Your task to perform on an android device: Search for Mexican restaurants on Maps Image 0: 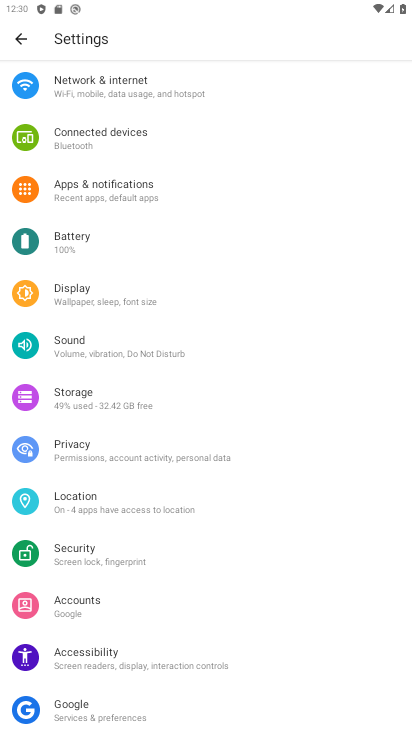
Step 0: press home button
Your task to perform on an android device: Search for Mexican restaurants on Maps Image 1: 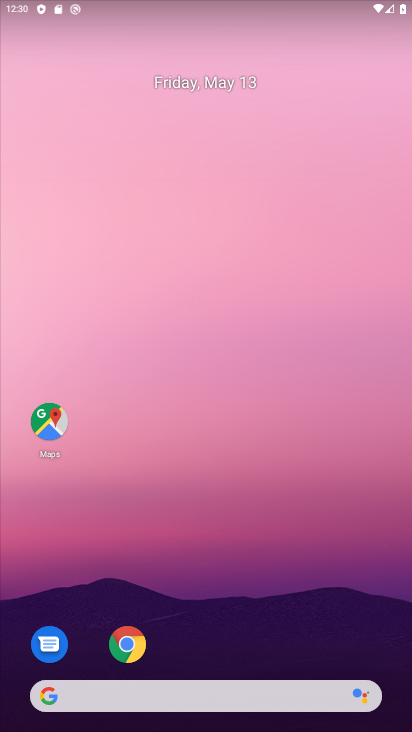
Step 1: click (54, 423)
Your task to perform on an android device: Search for Mexican restaurants on Maps Image 2: 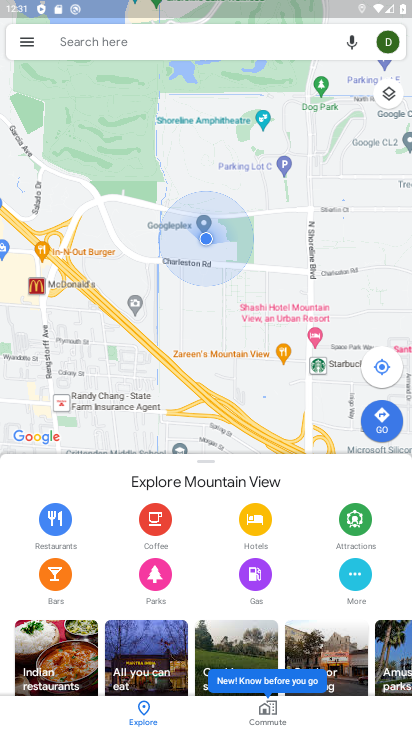
Step 2: click (158, 40)
Your task to perform on an android device: Search for Mexican restaurants on Maps Image 3: 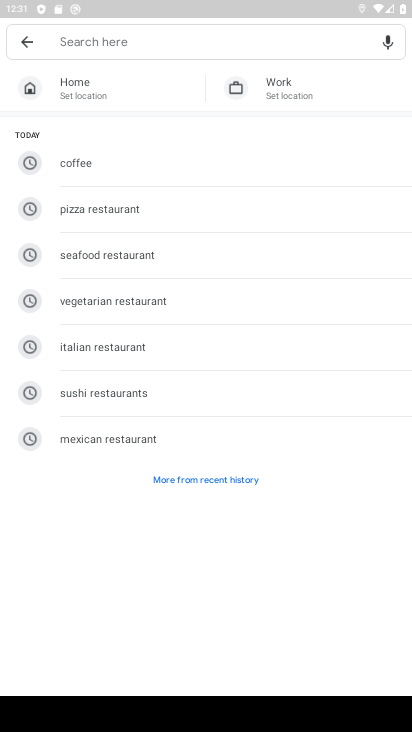
Step 3: click (113, 439)
Your task to perform on an android device: Search for Mexican restaurants on Maps Image 4: 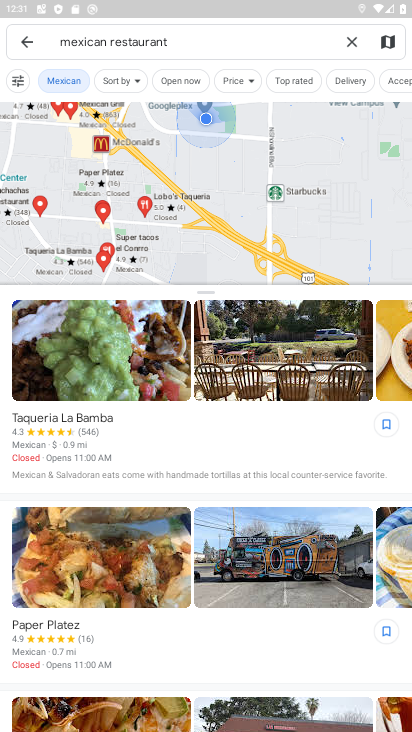
Step 4: task complete